Your task to perform on an android device: Go to Google Image 0: 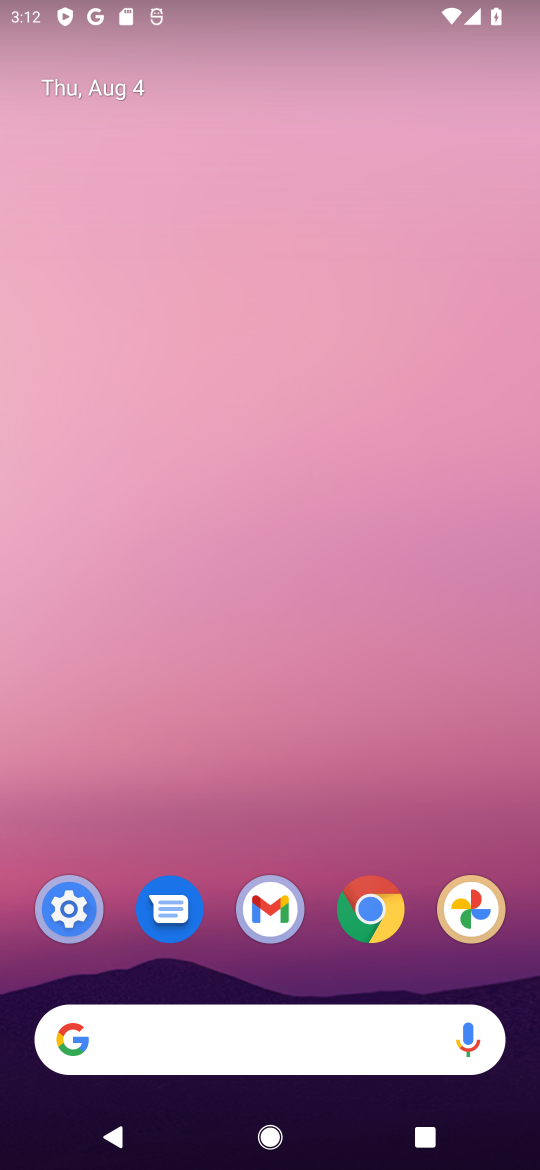
Step 0: click (99, 1038)
Your task to perform on an android device: Go to Google Image 1: 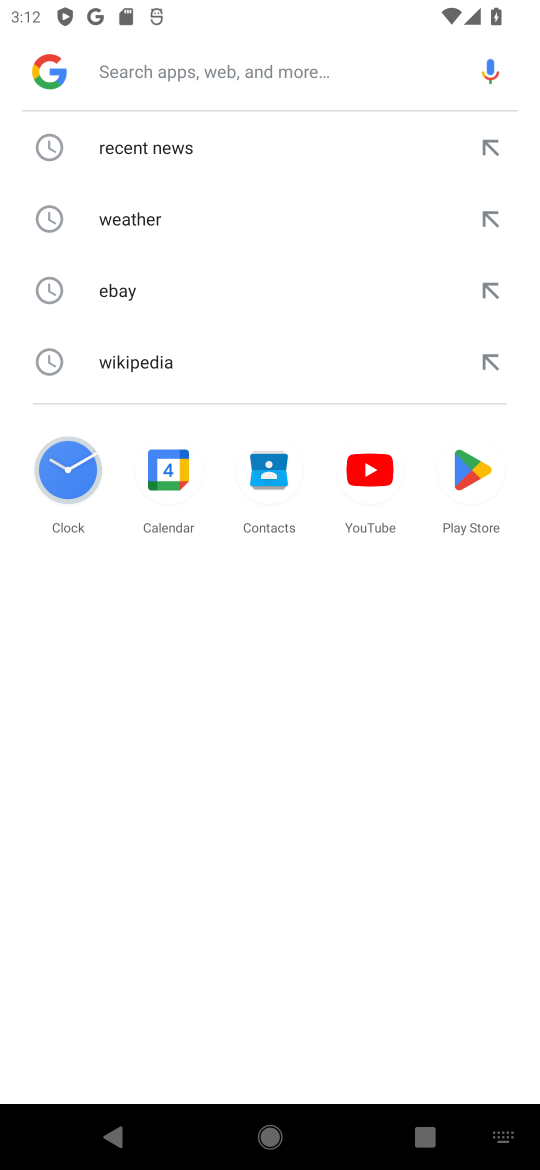
Step 1: click (50, 84)
Your task to perform on an android device: Go to Google Image 2: 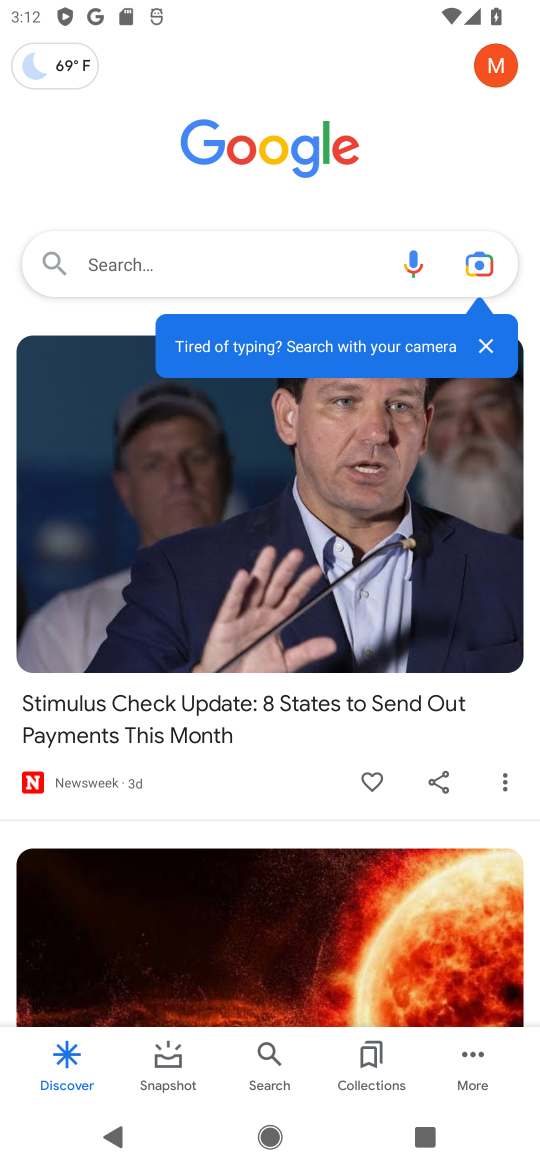
Step 2: task complete